Your task to perform on an android device: open app "Fetch Rewards" (install if not already installed) and go to login screen Image 0: 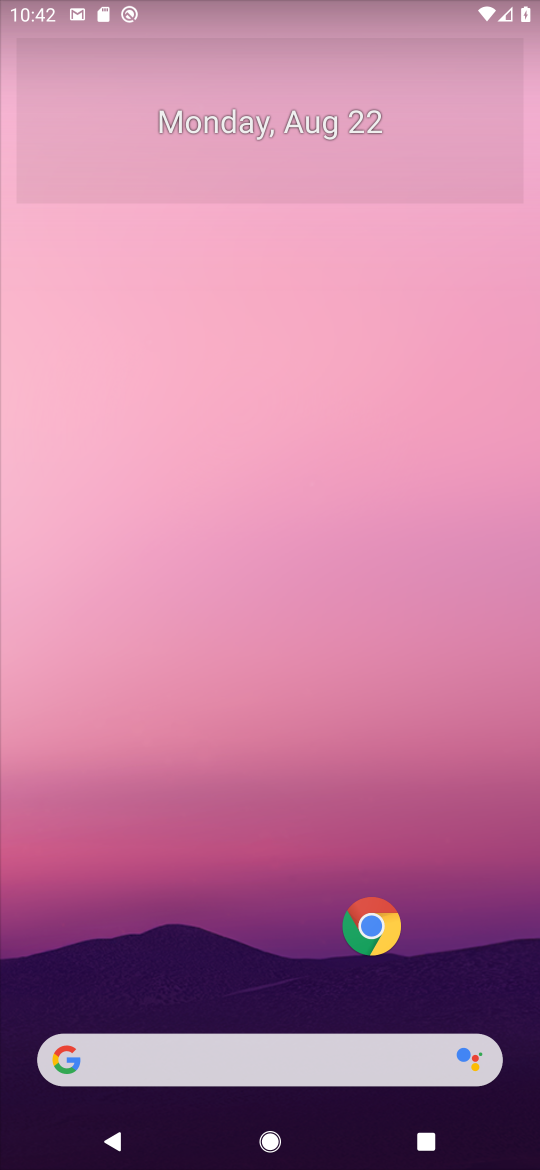
Step 0: drag from (412, 880) to (326, 37)
Your task to perform on an android device: open app "Fetch Rewards" (install if not already installed) and go to login screen Image 1: 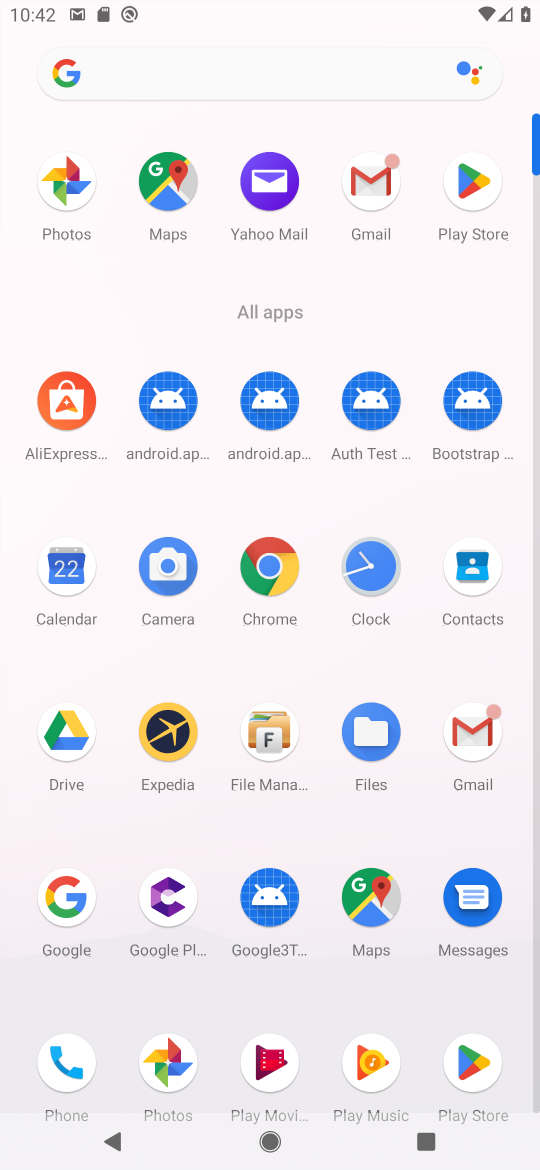
Step 1: click (453, 206)
Your task to perform on an android device: open app "Fetch Rewards" (install if not already installed) and go to login screen Image 2: 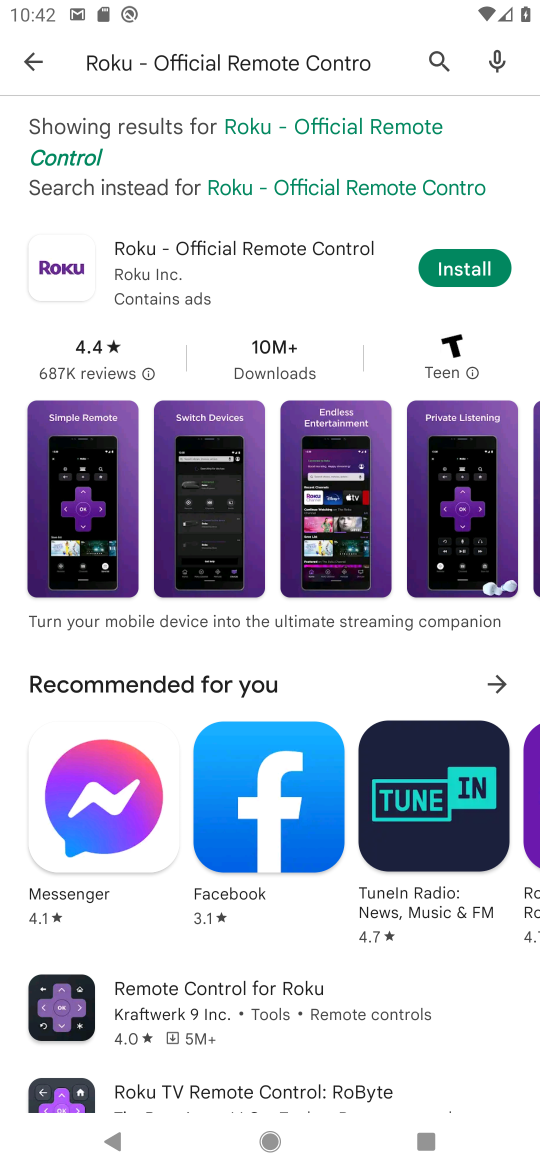
Step 2: press back button
Your task to perform on an android device: open app "Fetch Rewards" (install if not already installed) and go to login screen Image 3: 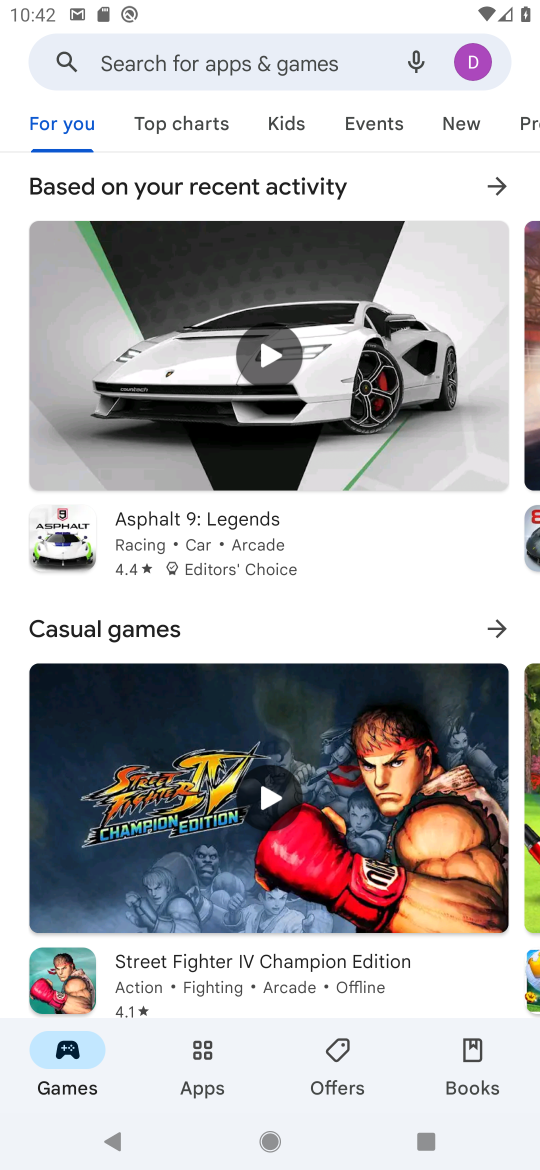
Step 3: click (311, 56)
Your task to perform on an android device: open app "Fetch Rewards" (install if not already installed) and go to login screen Image 4: 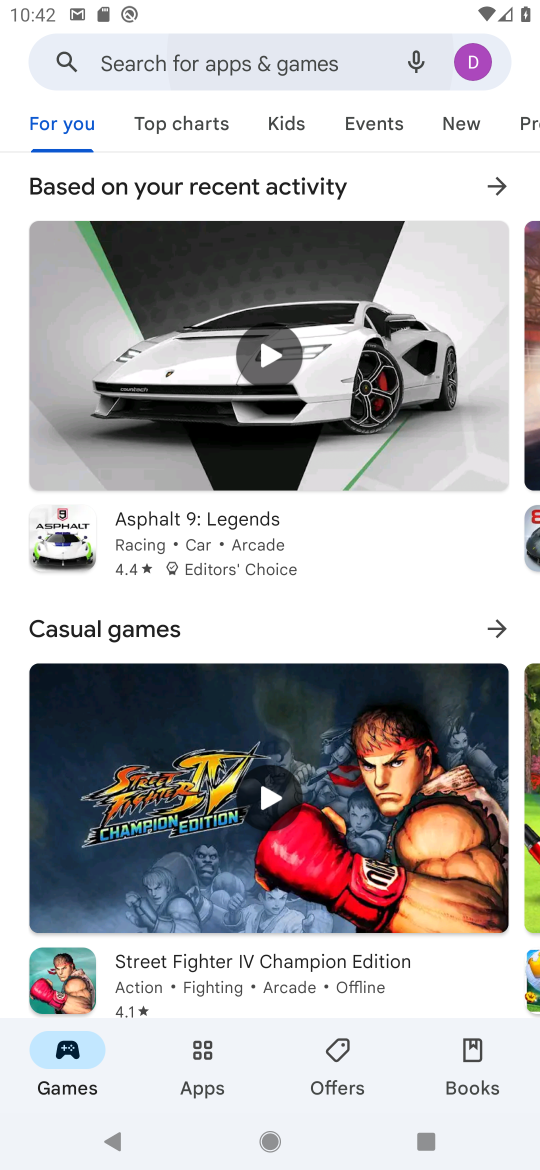
Step 4: type ""
Your task to perform on an android device: open app "Fetch Rewards" (install if not already installed) and go to login screen Image 5: 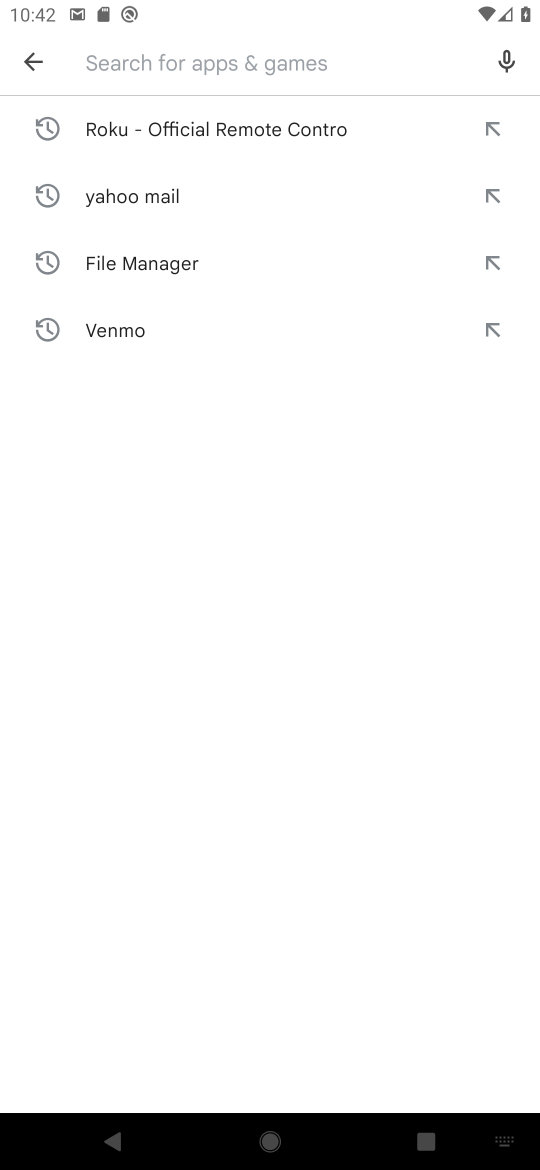
Step 5: type "Fetch Rewards"
Your task to perform on an android device: open app "Fetch Rewards" (install if not already installed) and go to login screen Image 6: 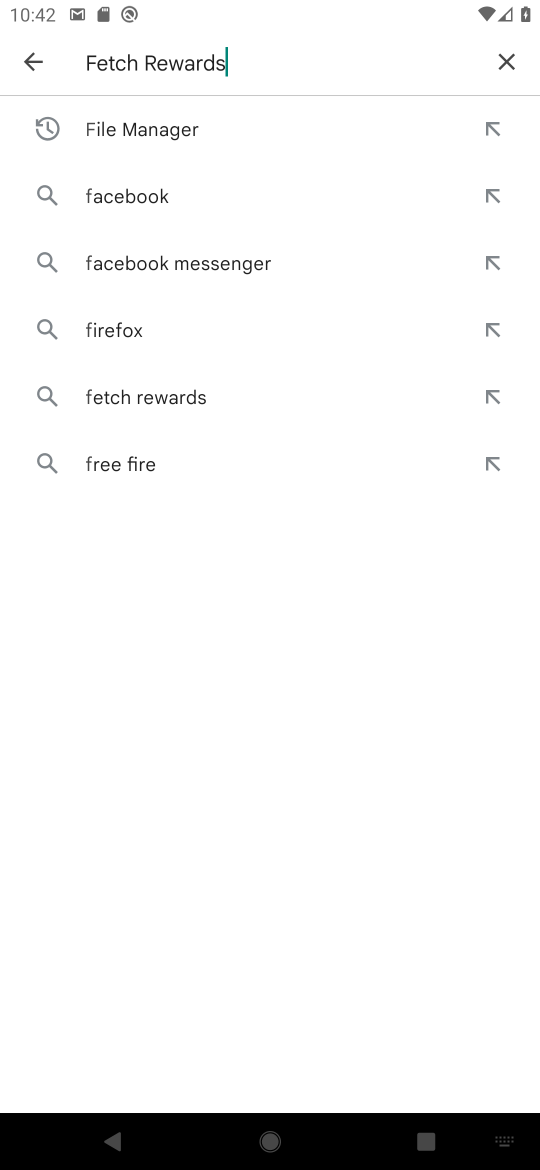
Step 6: press enter
Your task to perform on an android device: open app "Fetch Rewards" (install if not already installed) and go to login screen Image 7: 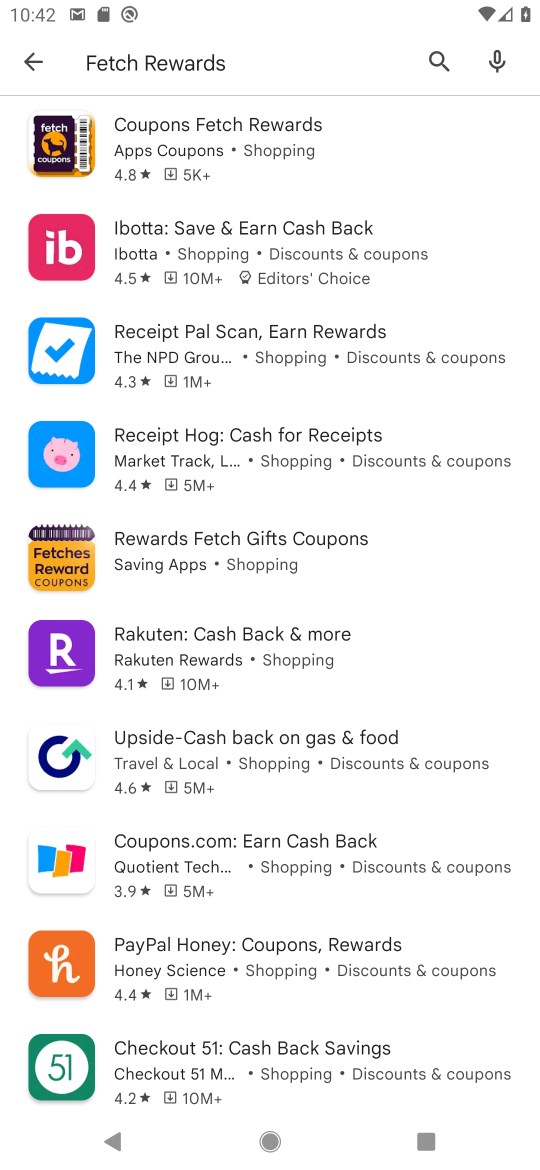
Step 7: task complete